Your task to perform on an android device: choose inbox layout in the gmail app Image 0: 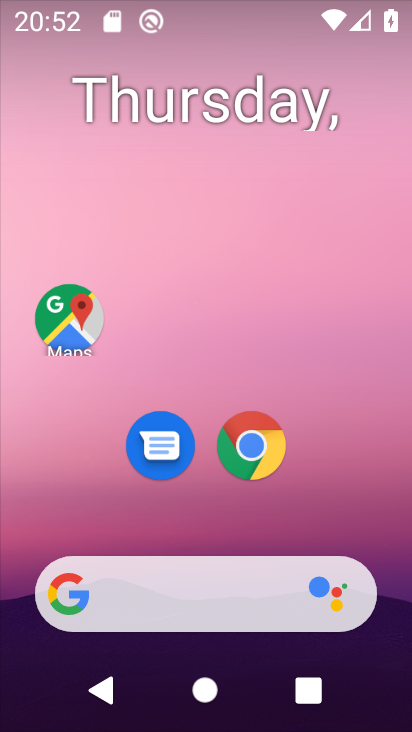
Step 0: drag from (347, 496) to (249, 125)
Your task to perform on an android device: choose inbox layout in the gmail app Image 1: 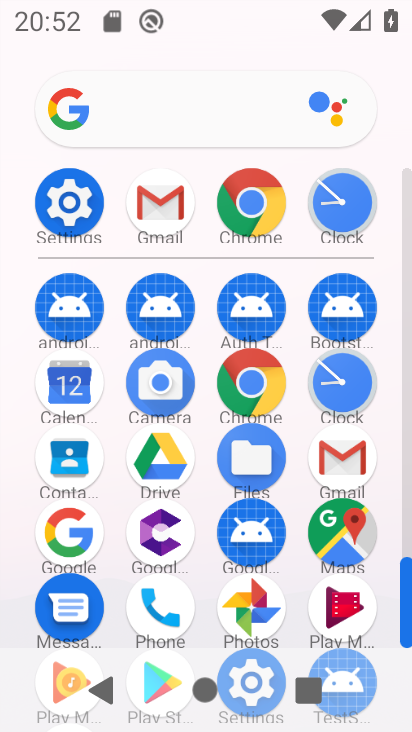
Step 1: click (165, 213)
Your task to perform on an android device: choose inbox layout in the gmail app Image 2: 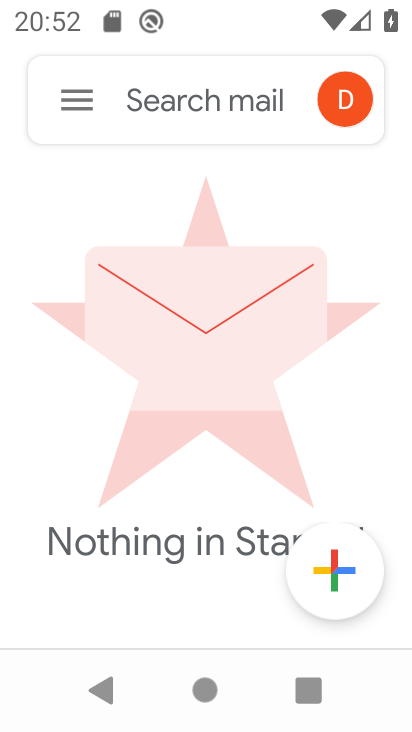
Step 2: click (65, 102)
Your task to perform on an android device: choose inbox layout in the gmail app Image 3: 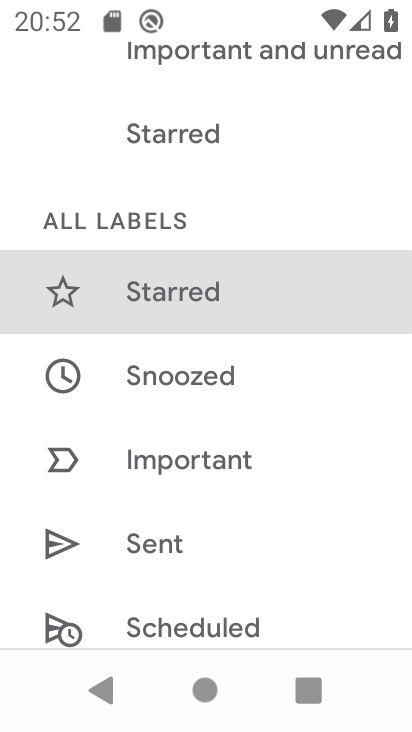
Step 3: drag from (236, 613) to (264, 155)
Your task to perform on an android device: choose inbox layout in the gmail app Image 4: 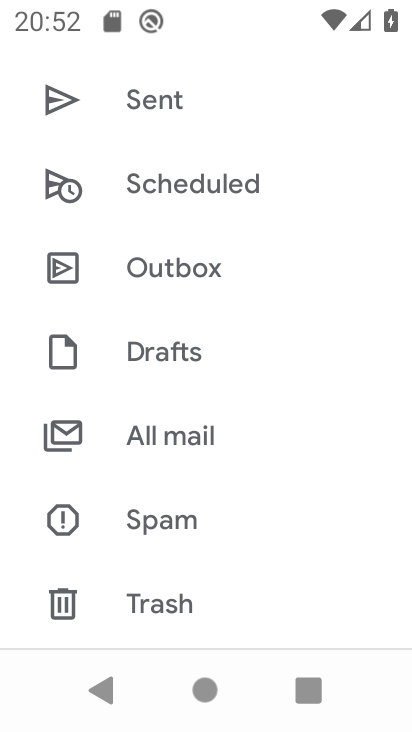
Step 4: drag from (196, 624) to (210, 209)
Your task to perform on an android device: choose inbox layout in the gmail app Image 5: 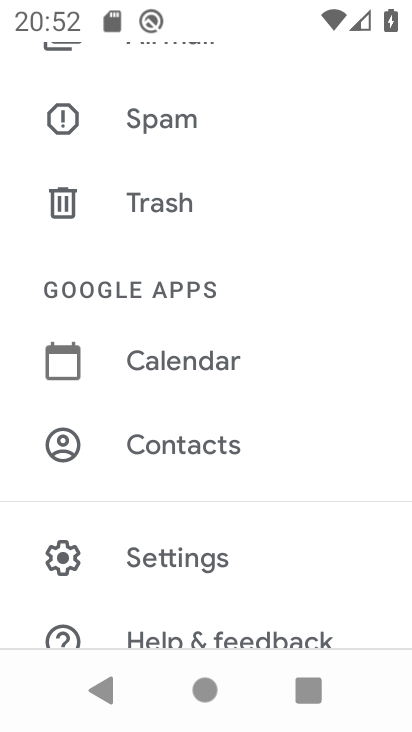
Step 5: click (177, 560)
Your task to perform on an android device: choose inbox layout in the gmail app Image 6: 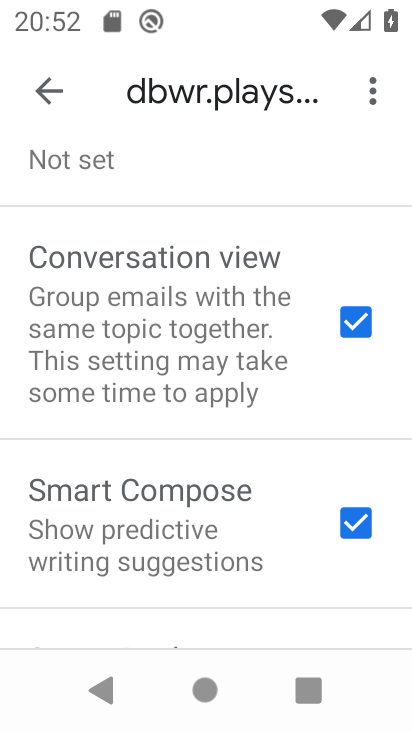
Step 6: drag from (216, 217) to (179, 601)
Your task to perform on an android device: choose inbox layout in the gmail app Image 7: 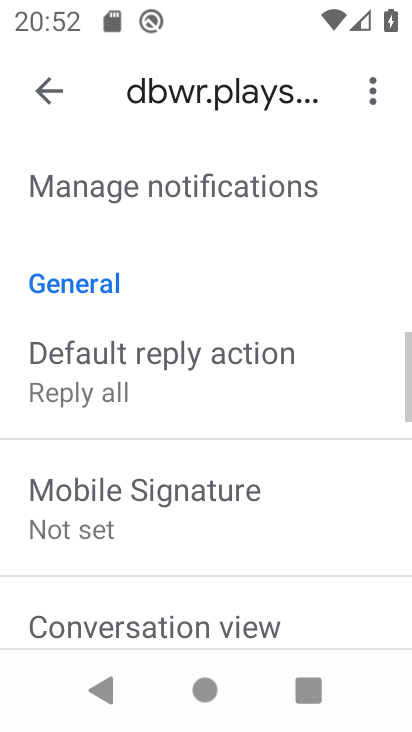
Step 7: drag from (179, 312) to (133, 619)
Your task to perform on an android device: choose inbox layout in the gmail app Image 8: 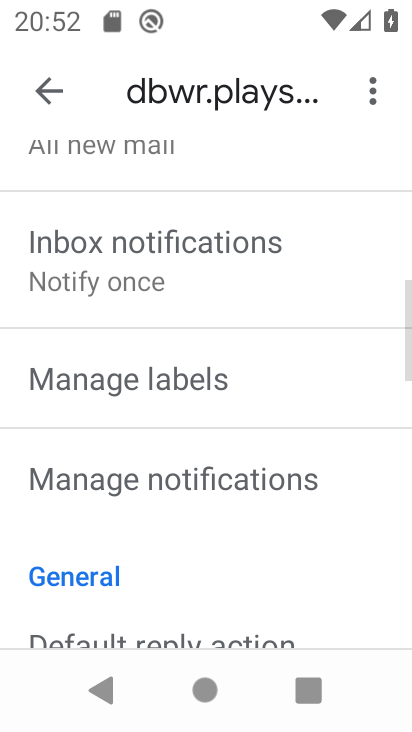
Step 8: drag from (202, 194) to (162, 556)
Your task to perform on an android device: choose inbox layout in the gmail app Image 9: 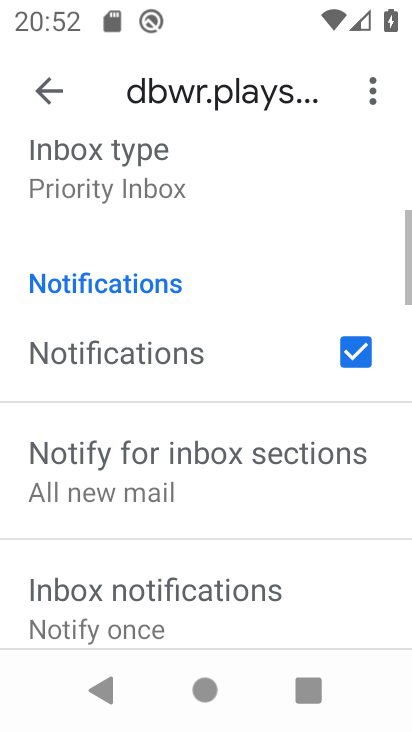
Step 9: drag from (213, 264) to (182, 459)
Your task to perform on an android device: choose inbox layout in the gmail app Image 10: 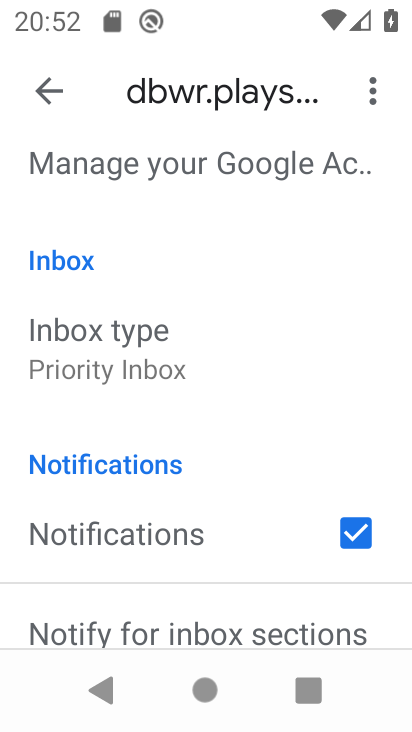
Step 10: click (125, 368)
Your task to perform on an android device: choose inbox layout in the gmail app Image 11: 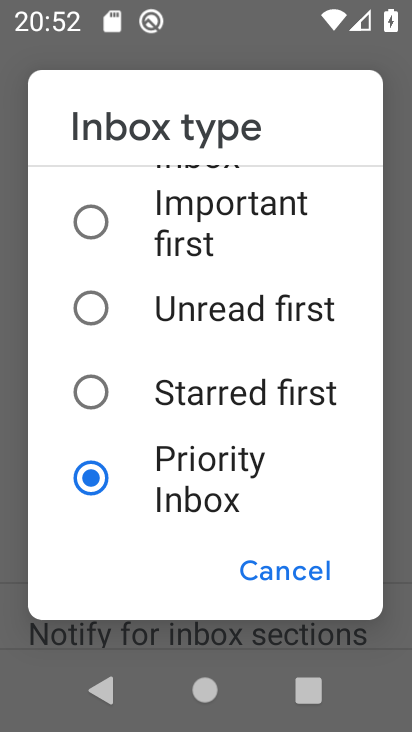
Step 11: drag from (225, 235) to (204, 548)
Your task to perform on an android device: choose inbox layout in the gmail app Image 12: 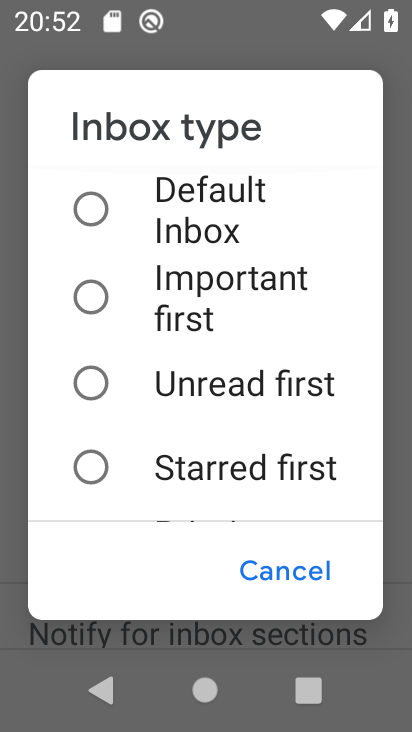
Step 12: click (157, 194)
Your task to perform on an android device: choose inbox layout in the gmail app Image 13: 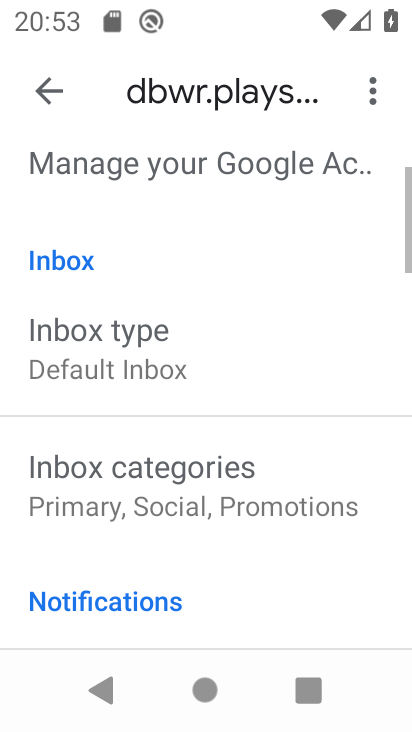
Step 13: click (105, 348)
Your task to perform on an android device: choose inbox layout in the gmail app Image 14: 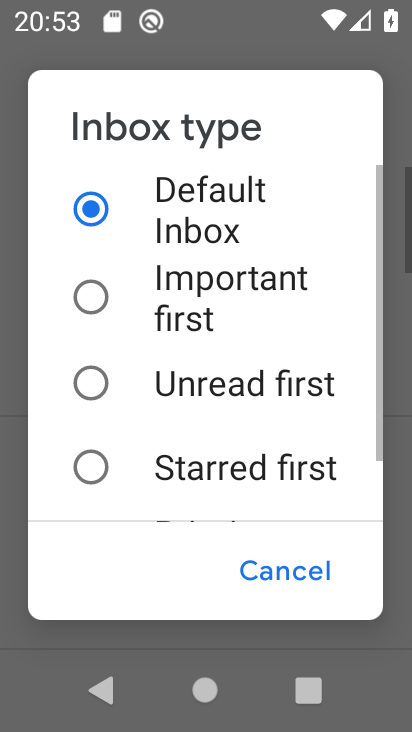
Step 14: drag from (116, 489) to (123, 152)
Your task to perform on an android device: choose inbox layout in the gmail app Image 15: 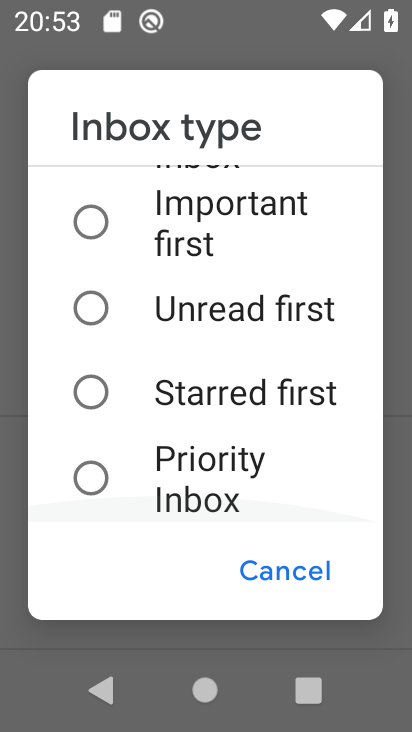
Step 15: click (87, 486)
Your task to perform on an android device: choose inbox layout in the gmail app Image 16: 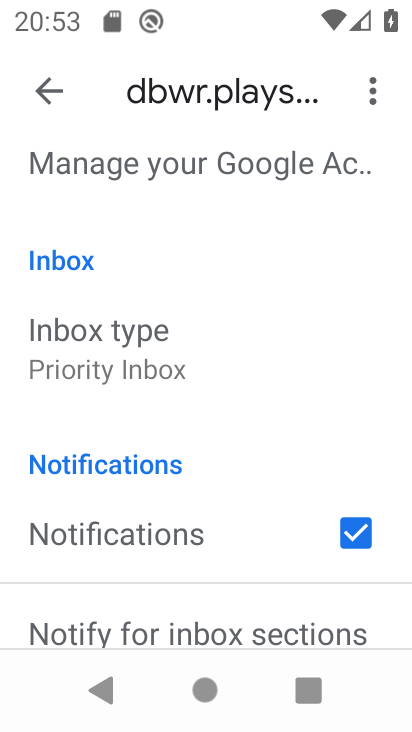
Step 16: press back button
Your task to perform on an android device: choose inbox layout in the gmail app Image 17: 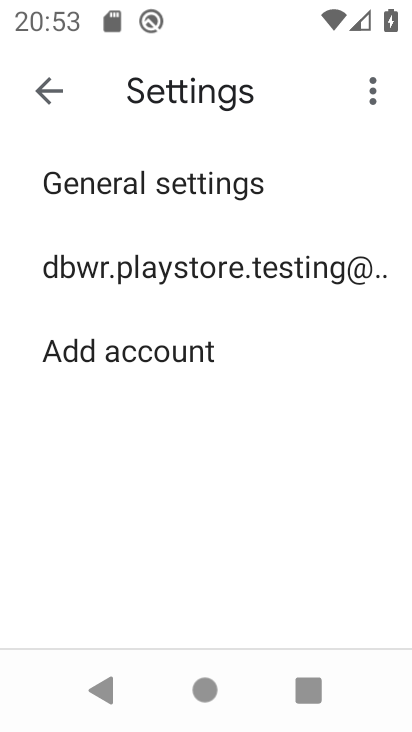
Step 17: press back button
Your task to perform on an android device: choose inbox layout in the gmail app Image 18: 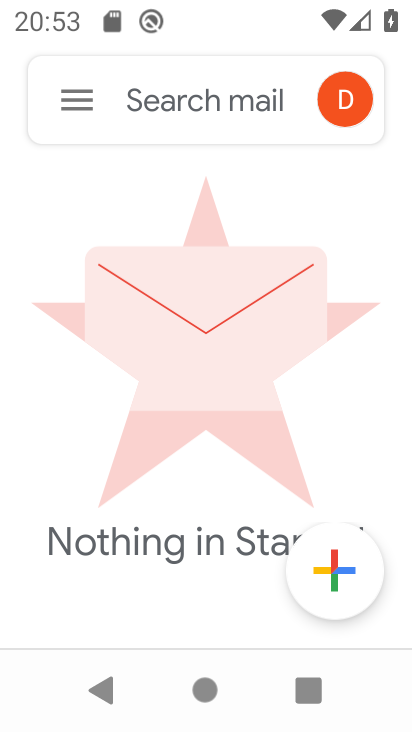
Step 18: click (82, 103)
Your task to perform on an android device: choose inbox layout in the gmail app Image 19: 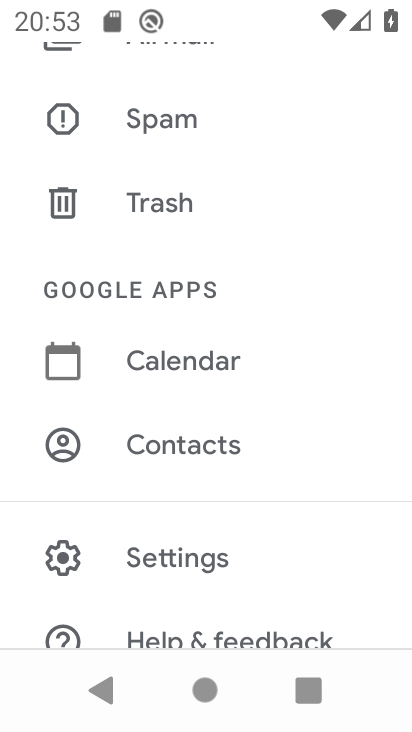
Step 19: task complete